Your task to perform on an android device: What's the weather? Image 0: 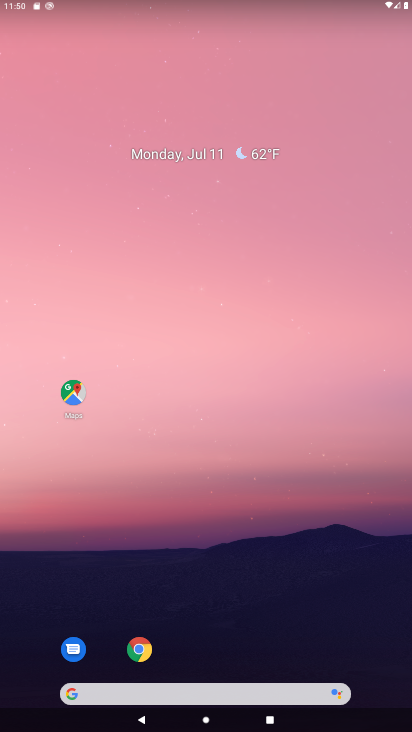
Step 0: click (244, 682)
Your task to perform on an android device: What's the weather? Image 1: 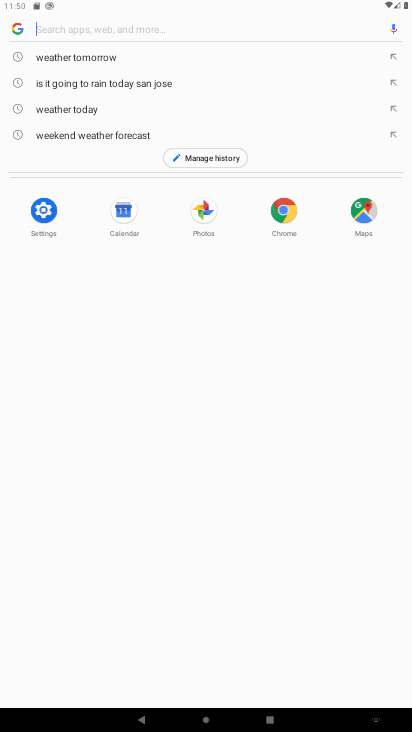
Step 1: click (67, 104)
Your task to perform on an android device: What's the weather? Image 2: 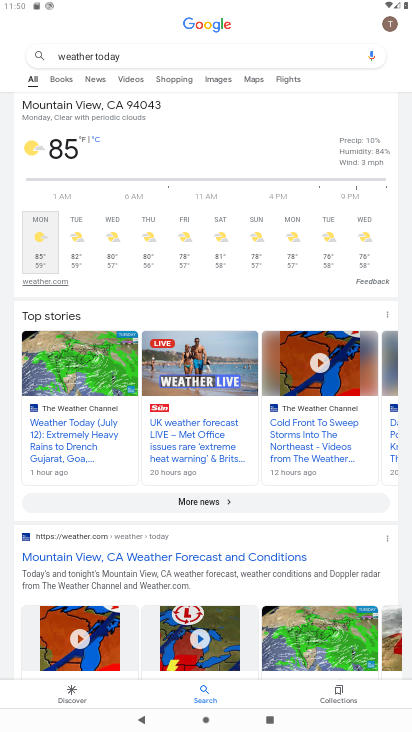
Step 2: task complete